Your task to perform on an android device: Open Chrome and go to settings Image 0: 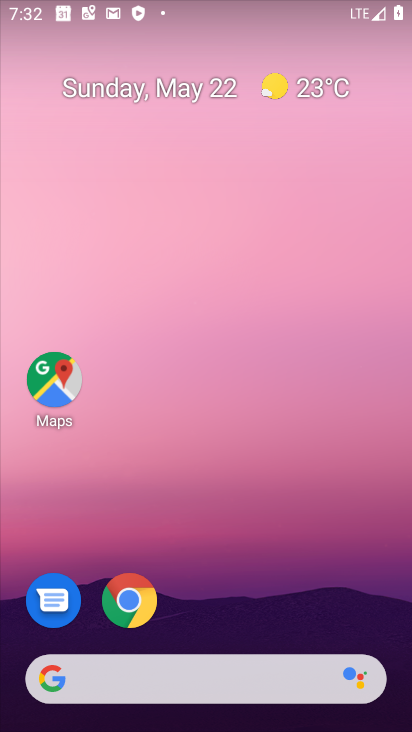
Step 0: drag from (261, 616) to (248, 176)
Your task to perform on an android device: Open Chrome and go to settings Image 1: 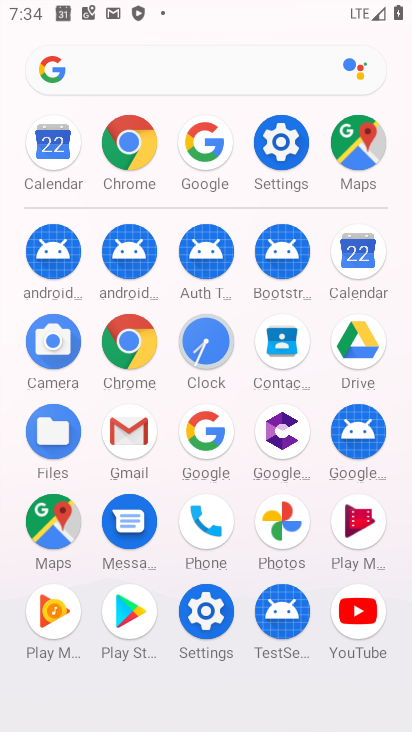
Step 1: click (114, 343)
Your task to perform on an android device: Open Chrome and go to settings Image 2: 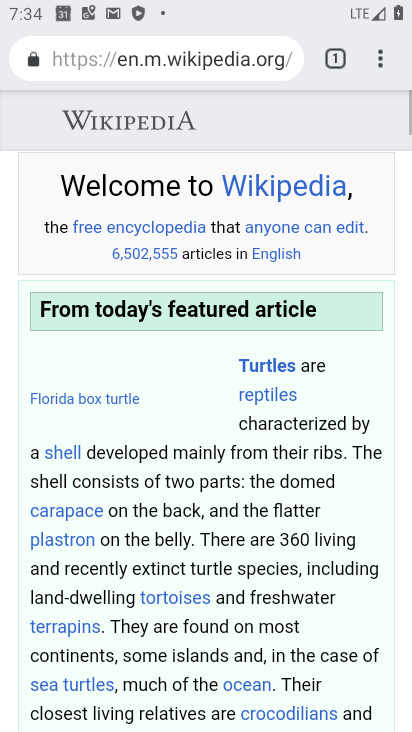
Step 2: press back button
Your task to perform on an android device: Open Chrome and go to settings Image 3: 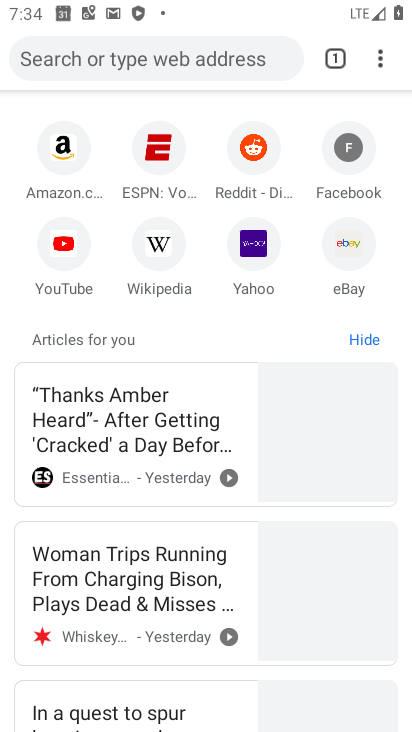
Step 3: click (382, 56)
Your task to perform on an android device: Open Chrome and go to settings Image 4: 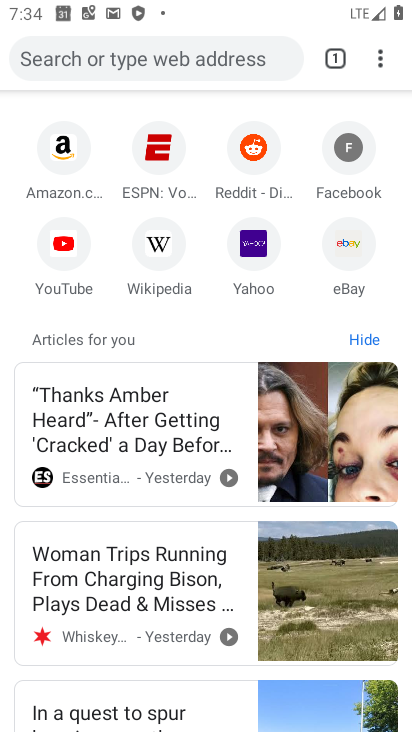
Step 4: click (377, 52)
Your task to perform on an android device: Open Chrome and go to settings Image 5: 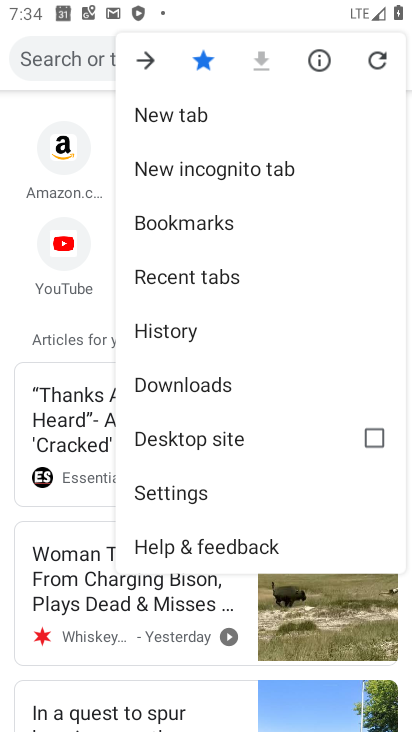
Step 5: click (182, 494)
Your task to perform on an android device: Open Chrome and go to settings Image 6: 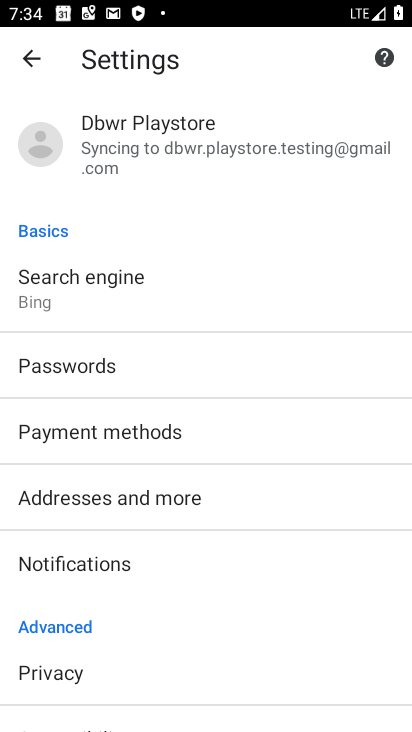
Step 6: task complete